Your task to perform on an android device: turn on javascript in the chrome app Image 0: 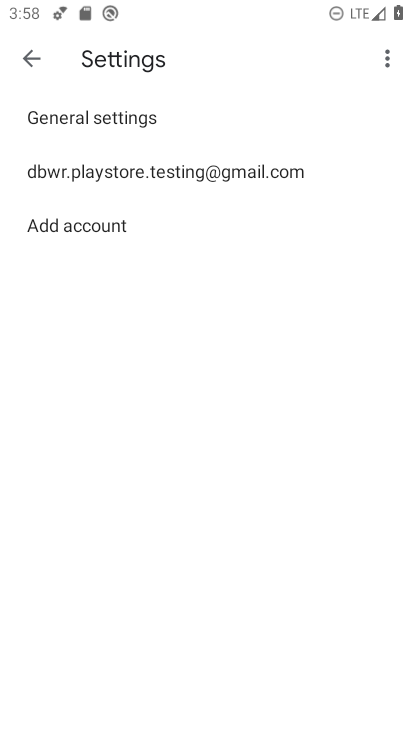
Step 0: press home button
Your task to perform on an android device: turn on javascript in the chrome app Image 1: 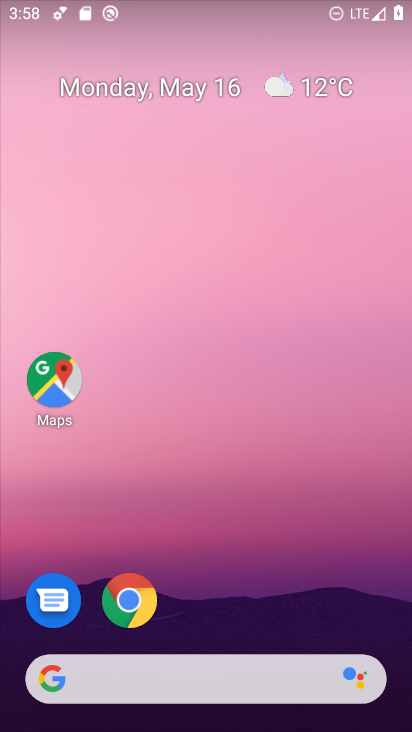
Step 1: drag from (184, 550) to (170, 43)
Your task to perform on an android device: turn on javascript in the chrome app Image 2: 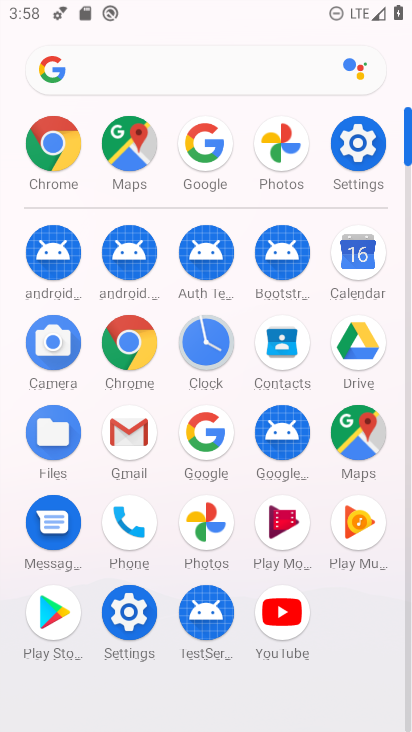
Step 2: click (121, 348)
Your task to perform on an android device: turn on javascript in the chrome app Image 3: 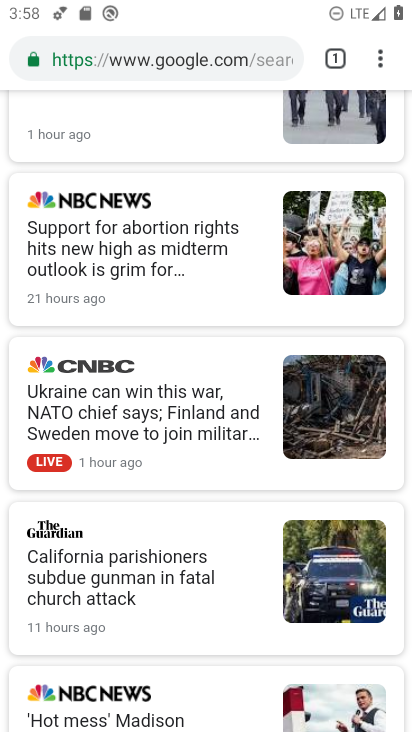
Step 3: drag from (201, 107) to (211, 436)
Your task to perform on an android device: turn on javascript in the chrome app Image 4: 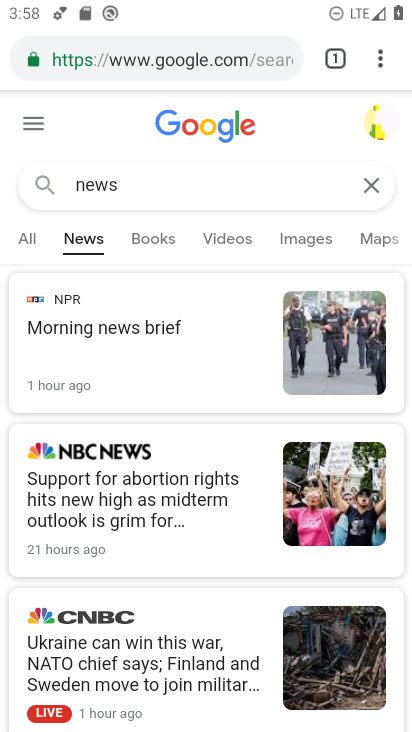
Step 4: click (376, 61)
Your task to perform on an android device: turn on javascript in the chrome app Image 5: 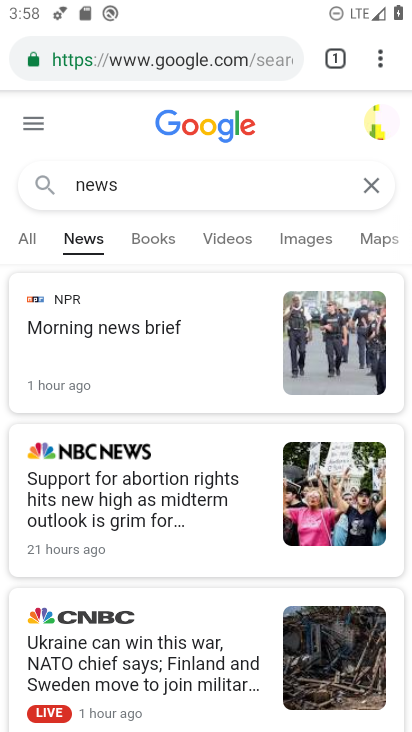
Step 5: drag from (381, 56) to (185, 647)
Your task to perform on an android device: turn on javascript in the chrome app Image 6: 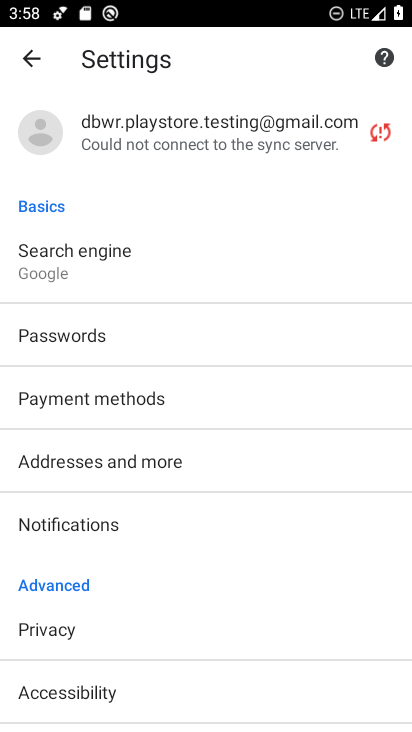
Step 6: drag from (142, 559) to (188, 318)
Your task to perform on an android device: turn on javascript in the chrome app Image 7: 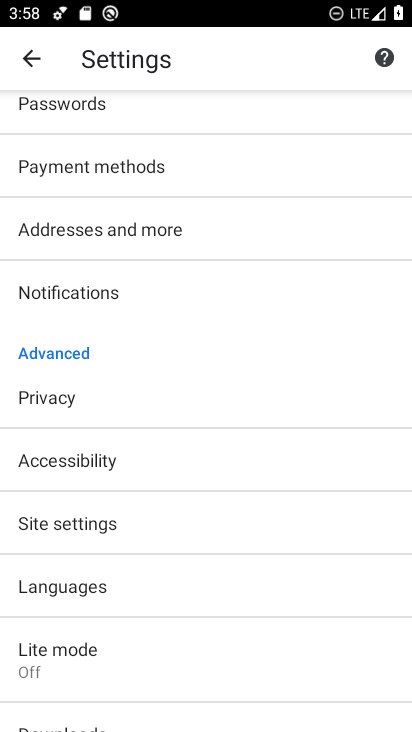
Step 7: click (122, 528)
Your task to perform on an android device: turn on javascript in the chrome app Image 8: 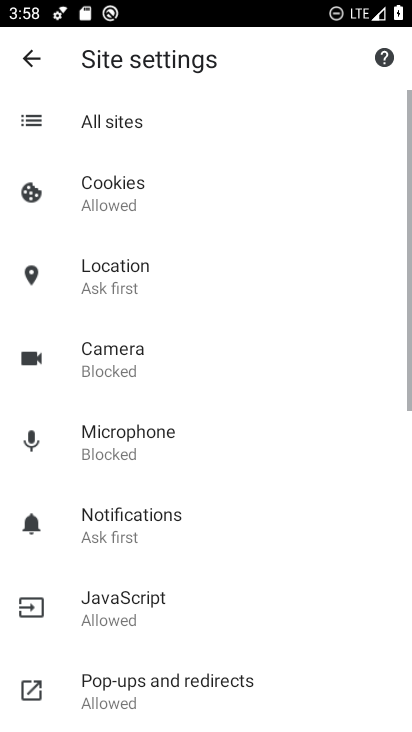
Step 8: click (187, 671)
Your task to perform on an android device: turn on javascript in the chrome app Image 9: 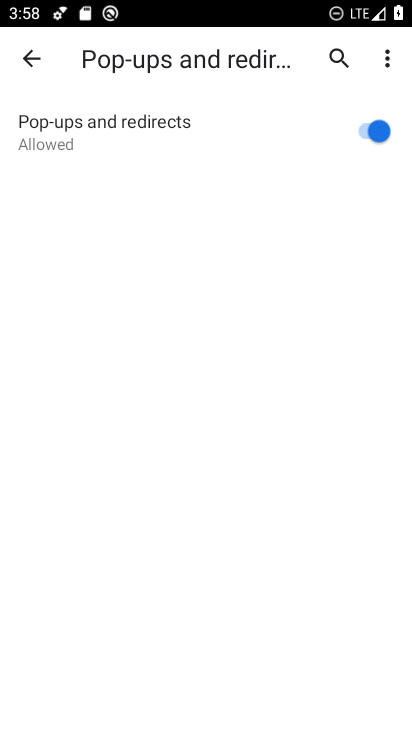
Step 9: click (37, 58)
Your task to perform on an android device: turn on javascript in the chrome app Image 10: 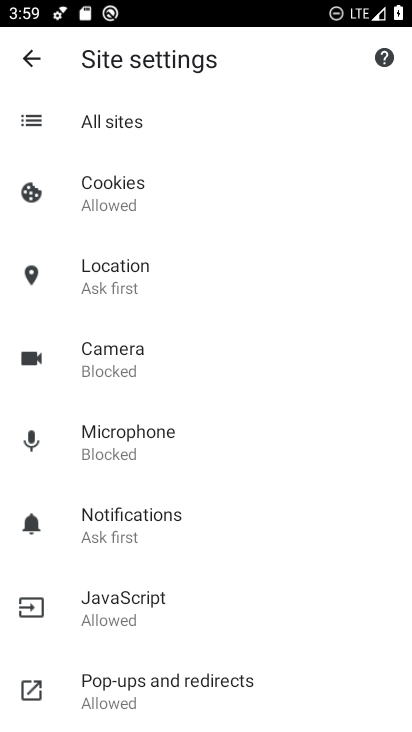
Step 10: click (134, 582)
Your task to perform on an android device: turn on javascript in the chrome app Image 11: 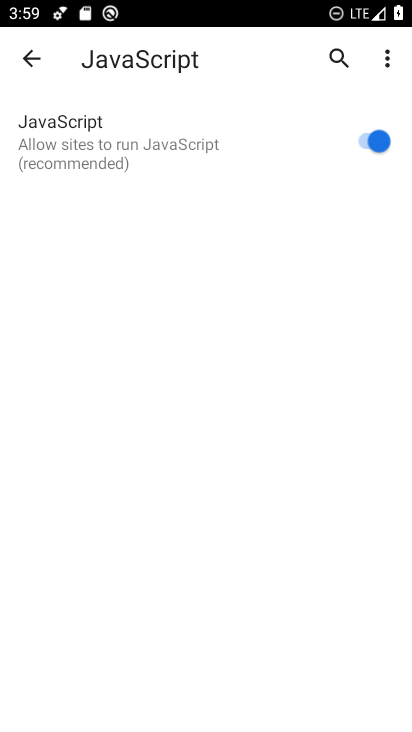
Step 11: task complete